Your task to perform on an android device: open sync settings in chrome Image 0: 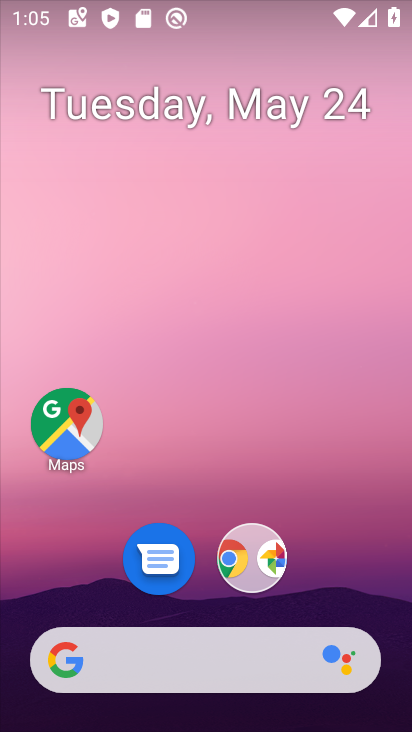
Step 0: drag from (370, 705) to (262, 161)
Your task to perform on an android device: open sync settings in chrome Image 1: 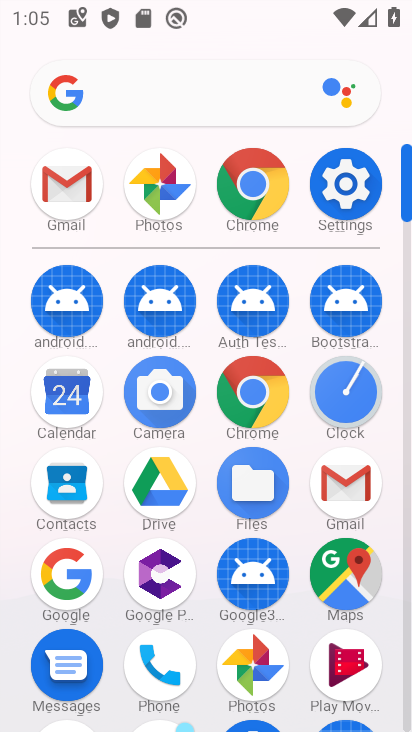
Step 1: click (248, 186)
Your task to perform on an android device: open sync settings in chrome Image 2: 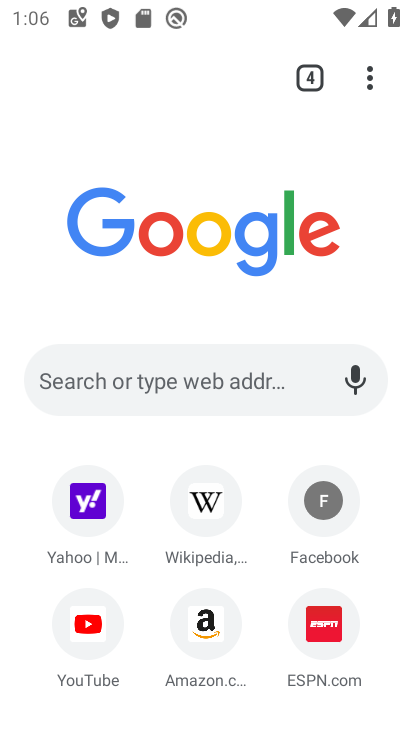
Step 2: click (363, 82)
Your task to perform on an android device: open sync settings in chrome Image 3: 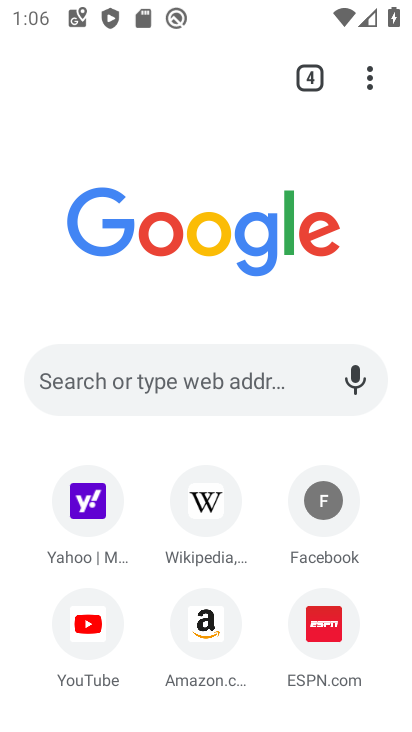
Step 3: click (368, 80)
Your task to perform on an android device: open sync settings in chrome Image 4: 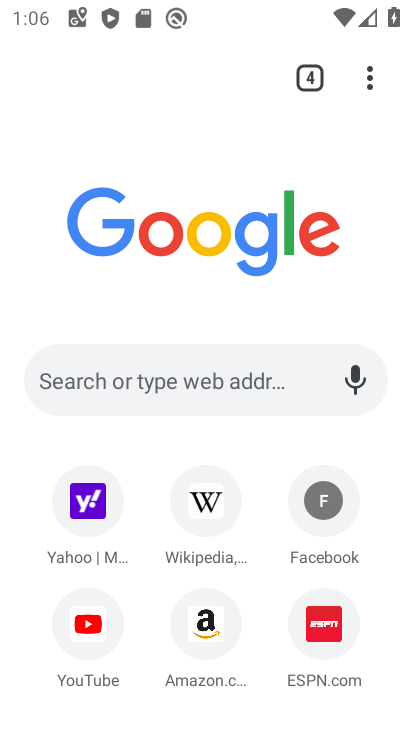
Step 4: drag from (363, 92) to (114, 546)
Your task to perform on an android device: open sync settings in chrome Image 5: 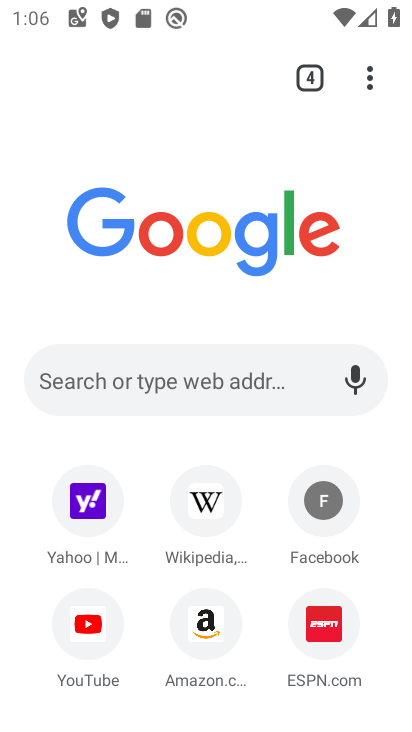
Step 5: click (372, 83)
Your task to perform on an android device: open sync settings in chrome Image 6: 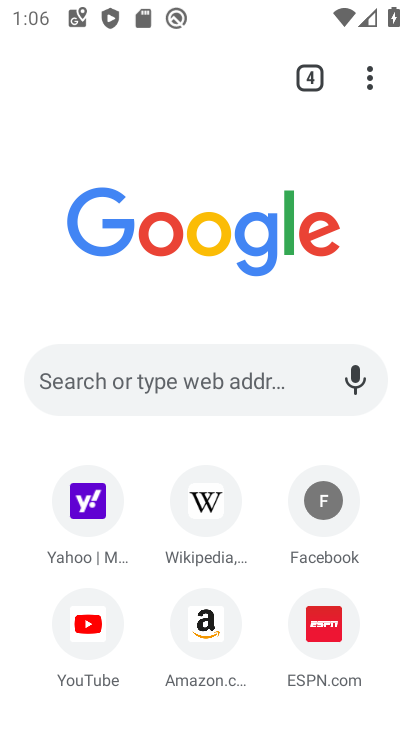
Step 6: click (365, 80)
Your task to perform on an android device: open sync settings in chrome Image 7: 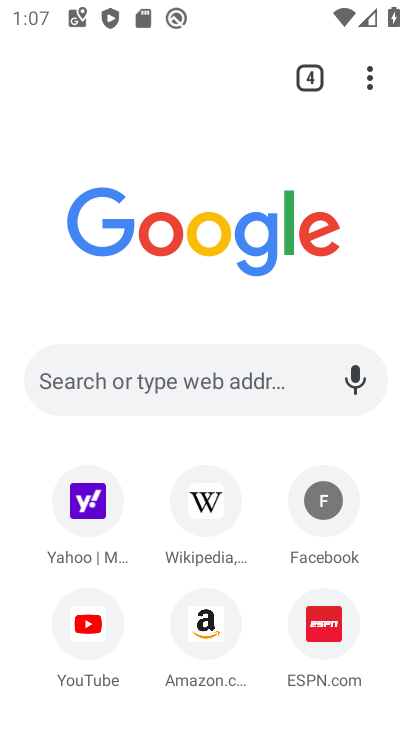
Step 7: drag from (368, 79) to (127, 631)
Your task to perform on an android device: open sync settings in chrome Image 8: 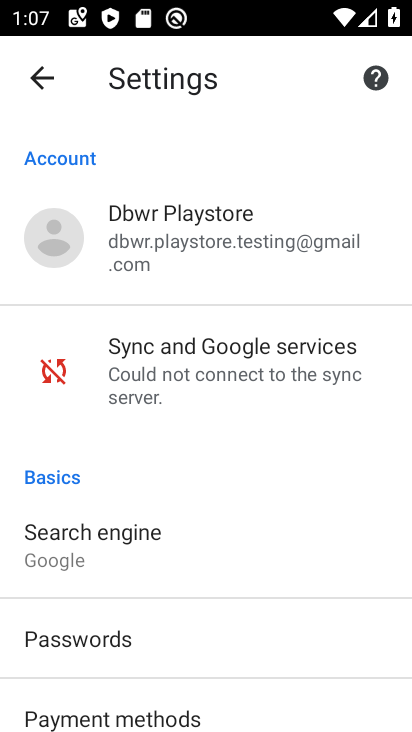
Step 8: click (42, 60)
Your task to perform on an android device: open sync settings in chrome Image 9: 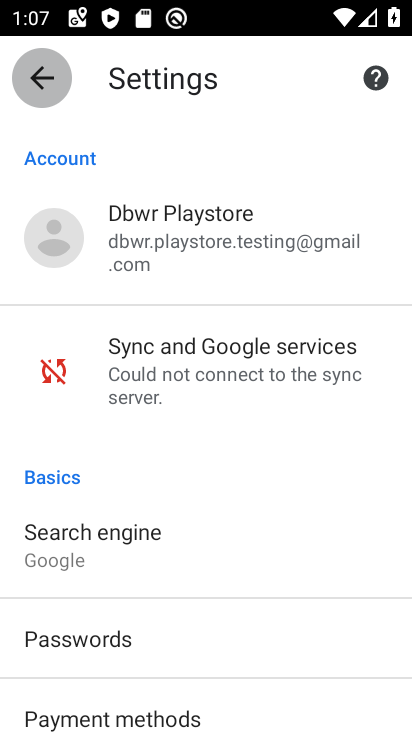
Step 9: click (42, 82)
Your task to perform on an android device: open sync settings in chrome Image 10: 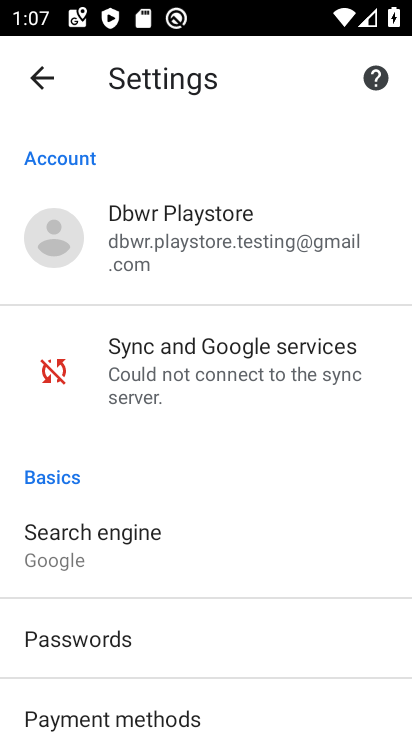
Step 10: click (42, 83)
Your task to perform on an android device: open sync settings in chrome Image 11: 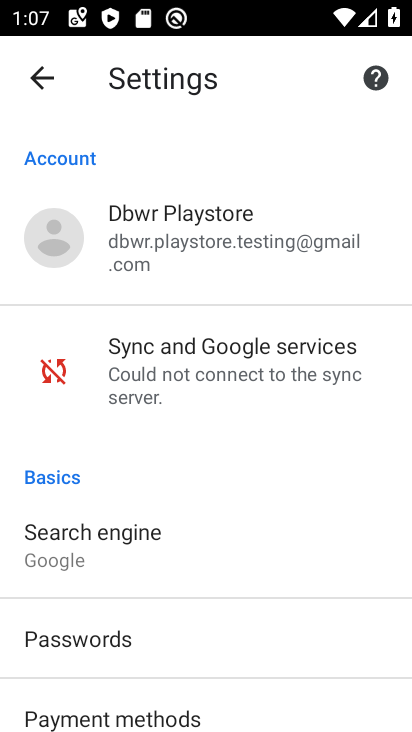
Step 11: click (42, 83)
Your task to perform on an android device: open sync settings in chrome Image 12: 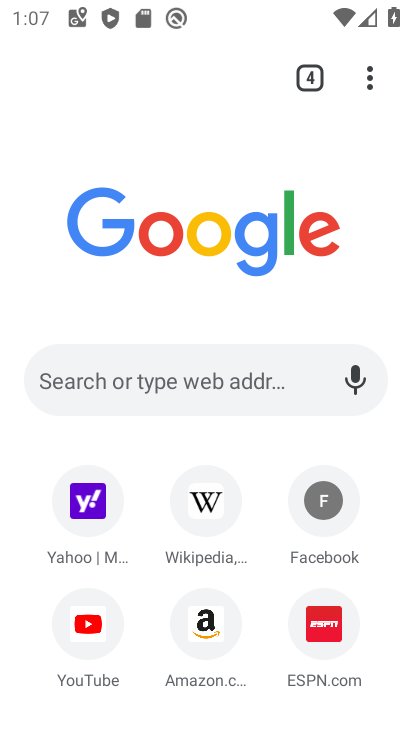
Step 12: task complete